Your task to perform on an android device: open a bookmark in the chrome app Image 0: 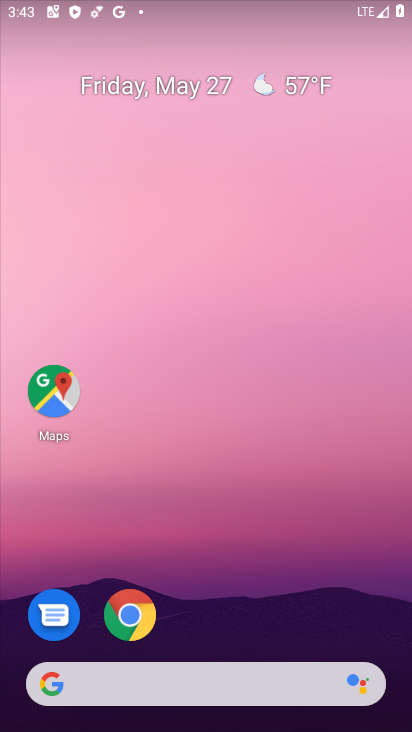
Step 0: click (122, 621)
Your task to perform on an android device: open a bookmark in the chrome app Image 1: 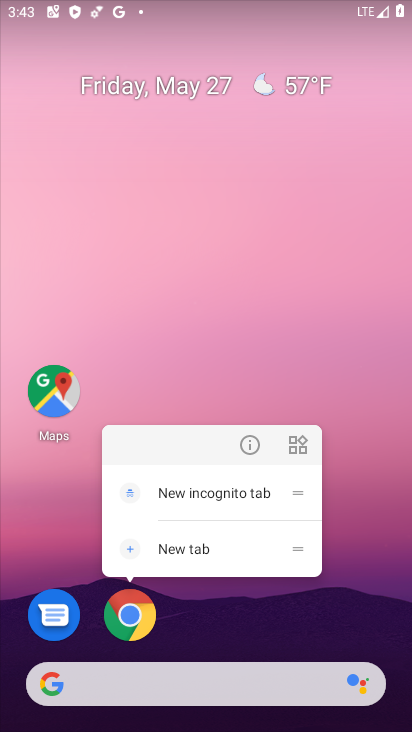
Step 1: click (124, 619)
Your task to perform on an android device: open a bookmark in the chrome app Image 2: 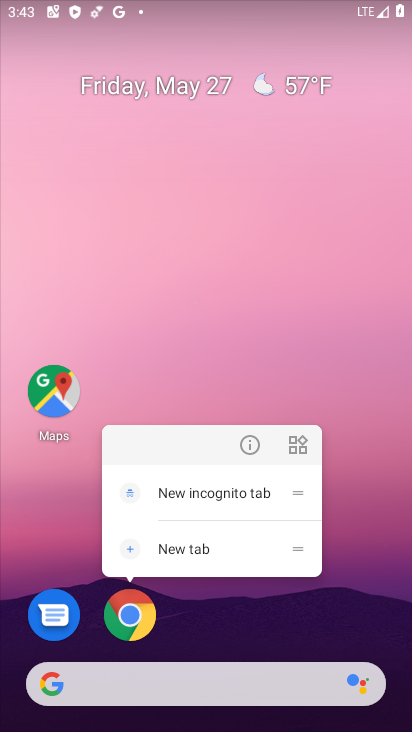
Step 2: click (132, 625)
Your task to perform on an android device: open a bookmark in the chrome app Image 3: 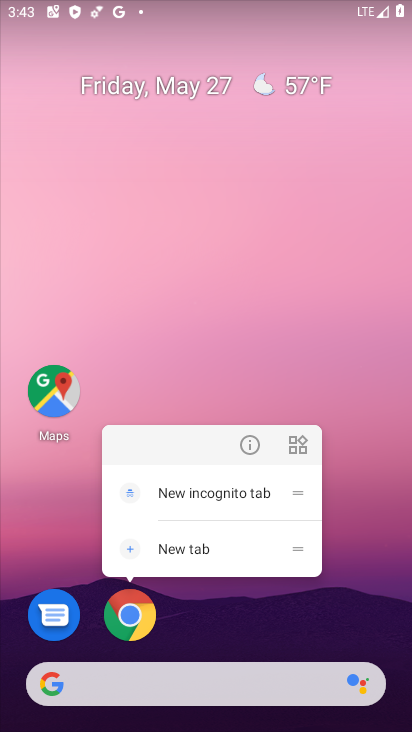
Step 3: click (128, 617)
Your task to perform on an android device: open a bookmark in the chrome app Image 4: 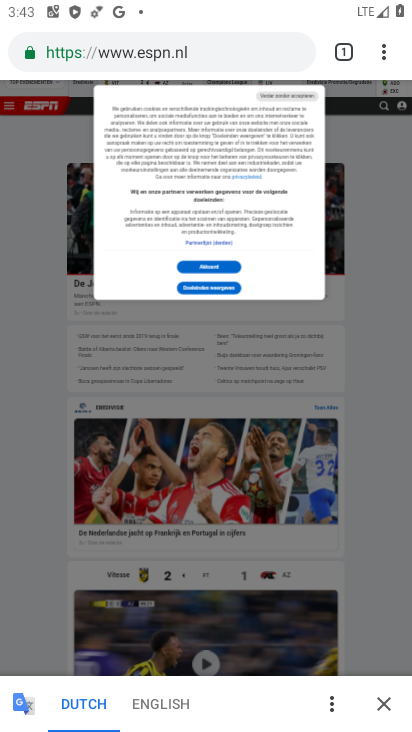
Step 4: click (383, 54)
Your task to perform on an android device: open a bookmark in the chrome app Image 5: 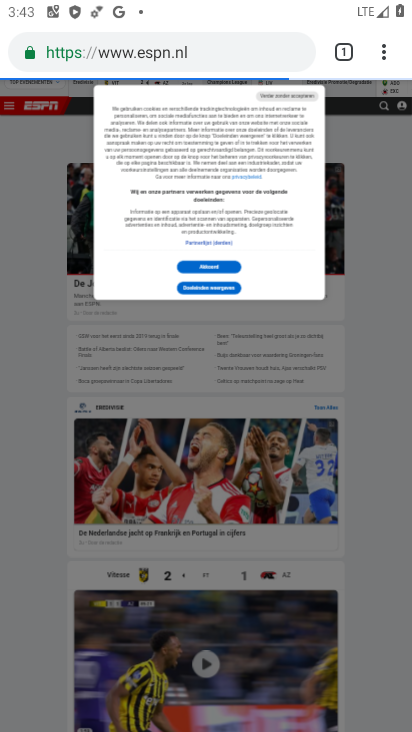
Step 5: click (387, 55)
Your task to perform on an android device: open a bookmark in the chrome app Image 6: 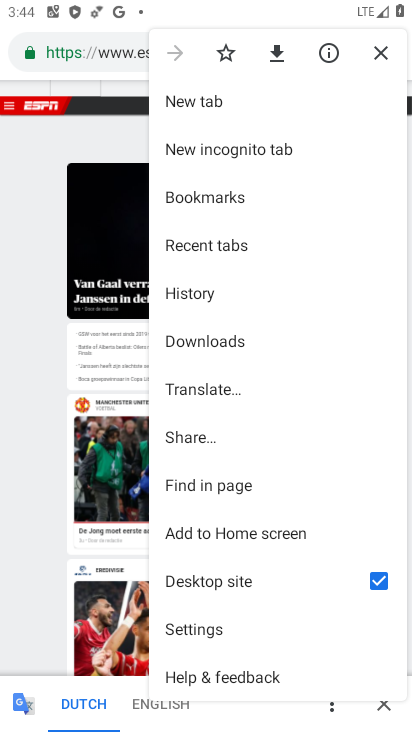
Step 6: click (259, 202)
Your task to perform on an android device: open a bookmark in the chrome app Image 7: 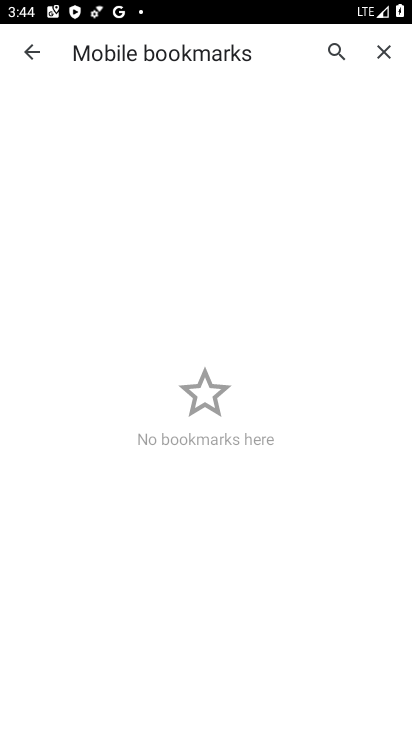
Step 7: task complete